Your task to perform on an android device: turn on location history Image 0: 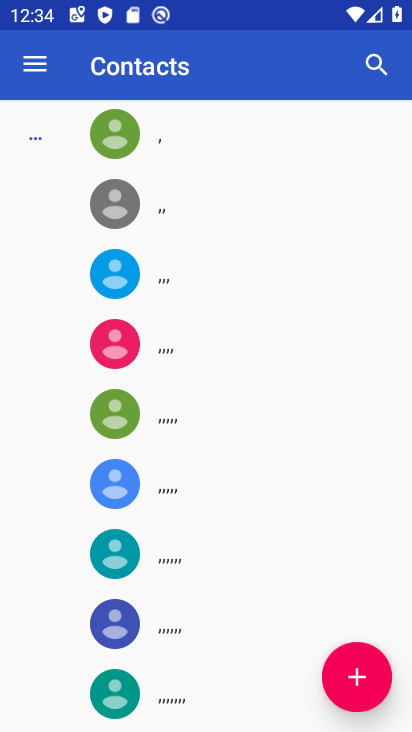
Step 0: press home button
Your task to perform on an android device: turn on location history Image 1: 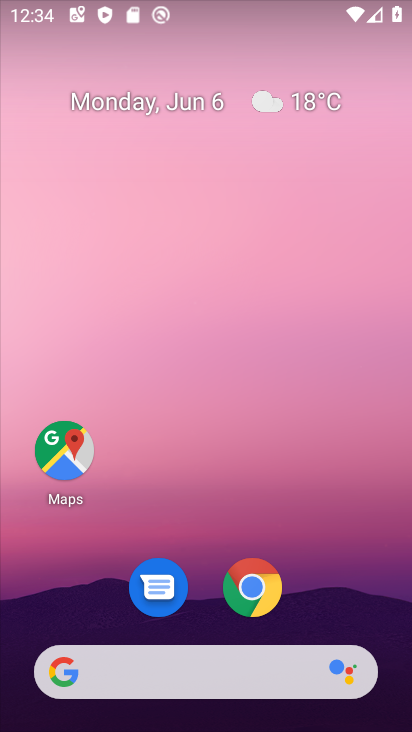
Step 1: drag from (356, 574) to (344, 216)
Your task to perform on an android device: turn on location history Image 2: 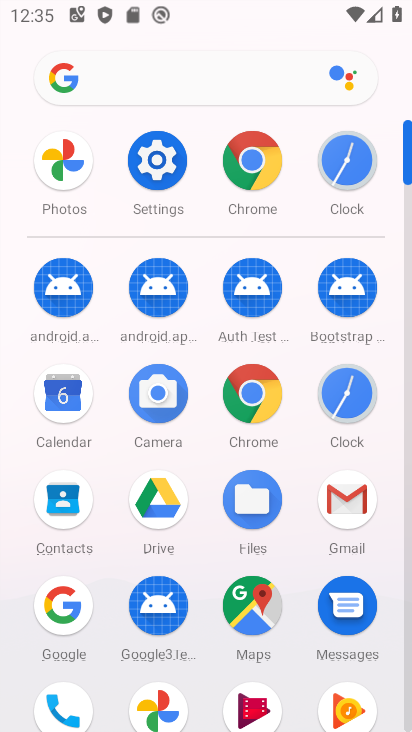
Step 2: click (162, 158)
Your task to perform on an android device: turn on location history Image 3: 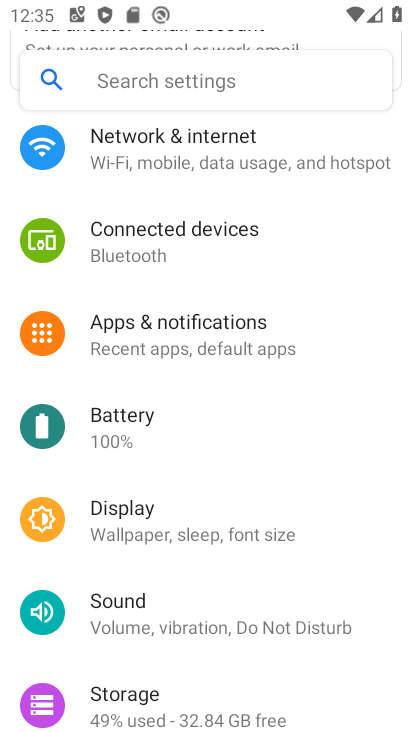
Step 3: drag from (199, 590) to (242, 367)
Your task to perform on an android device: turn on location history Image 4: 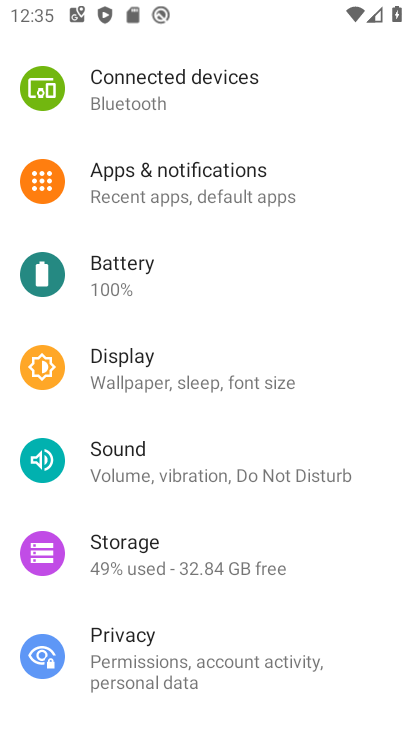
Step 4: drag from (217, 543) to (256, 288)
Your task to perform on an android device: turn on location history Image 5: 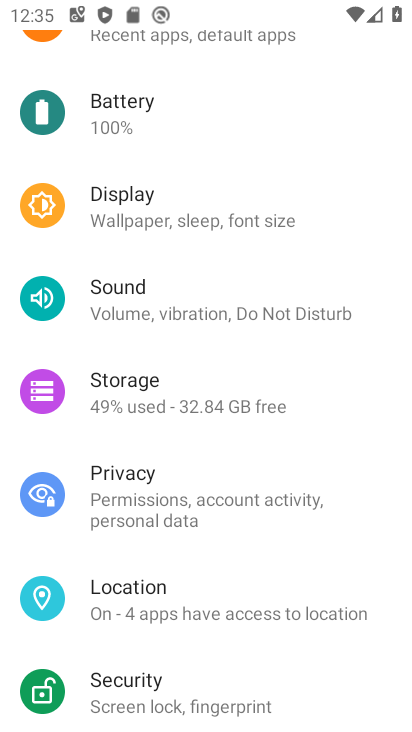
Step 5: click (211, 605)
Your task to perform on an android device: turn on location history Image 6: 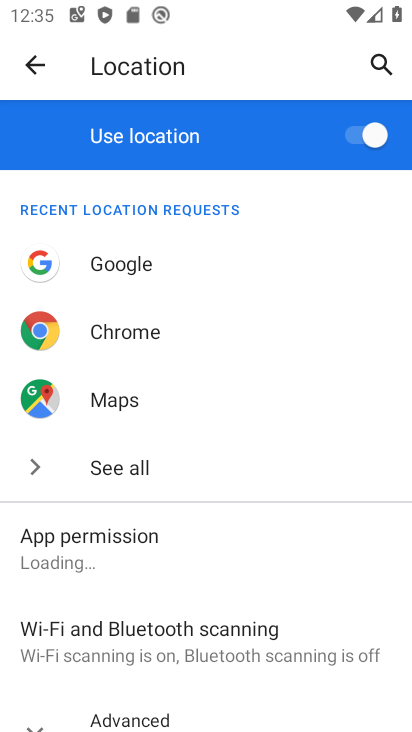
Step 6: drag from (192, 570) to (259, 261)
Your task to perform on an android device: turn on location history Image 7: 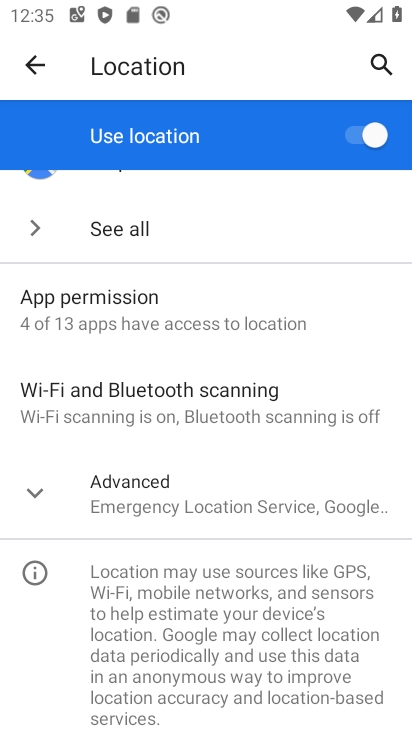
Step 7: click (273, 471)
Your task to perform on an android device: turn on location history Image 8: 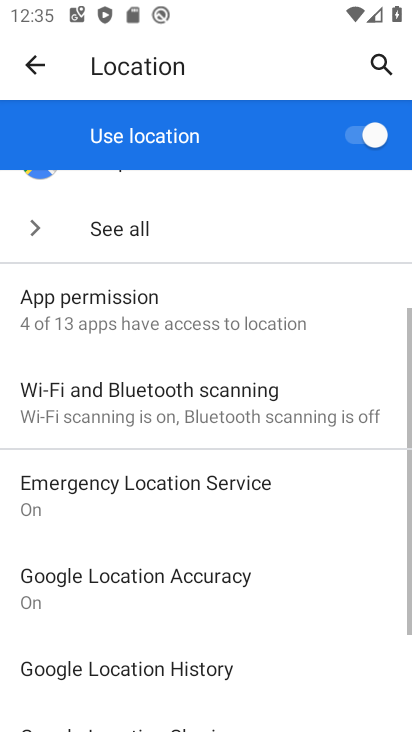
Step 8: drag from (236, 616) to (260, 389)
Your task to perform on an android device: turn on location history Image 9: 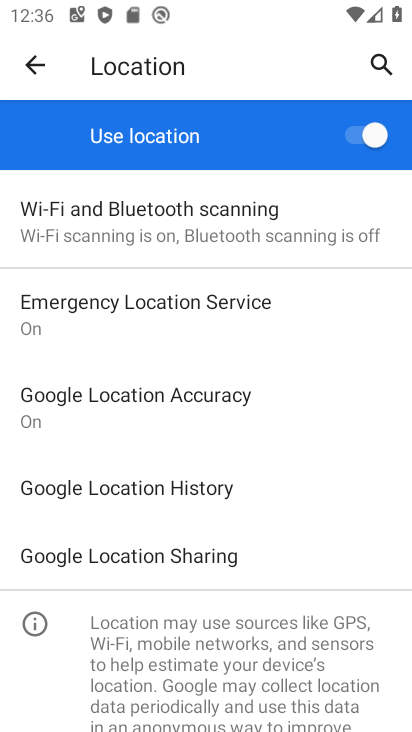
Step 9: click (178, 500)
Your task to perform on an android device: turn on location history Image 10: 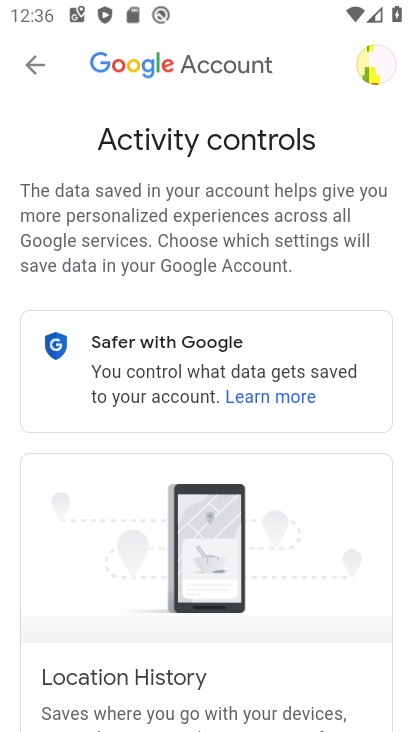
Step 10: drag from (311, 604) to (335, 306)
Your task to perform on an android device: turn on location history Image 11: 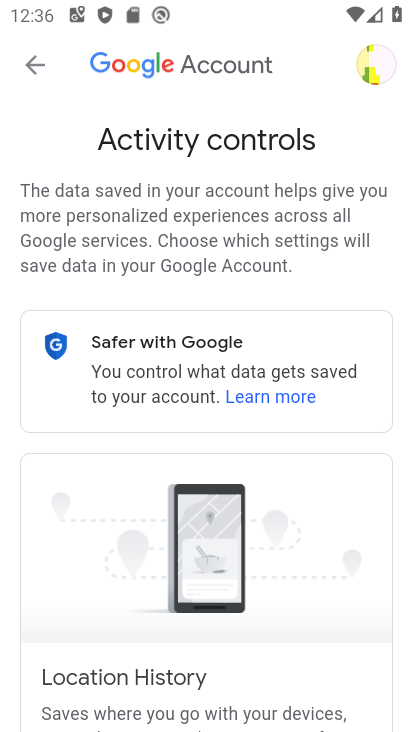
Step 11: drag from (305, 577) to (329, 279)
Your task to perform on an android device: turn on location history Image 12: 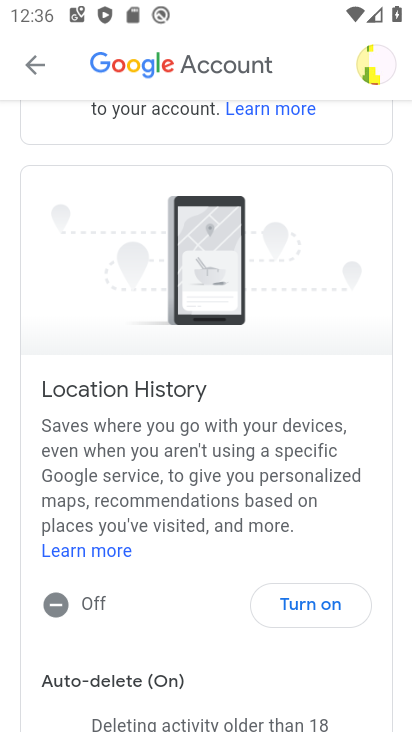
Step 12: click (298, 604)
Your task to perform on an android device: turn on location history Image 13: 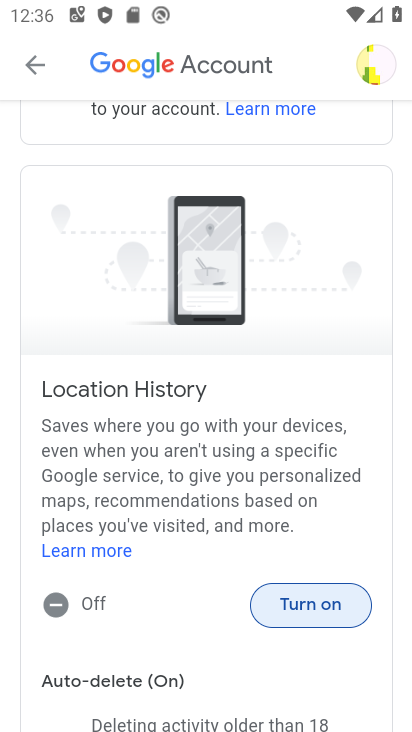
Step 13: click (298, 613)
Your task to perform on an android device: turn on location history Image 14: 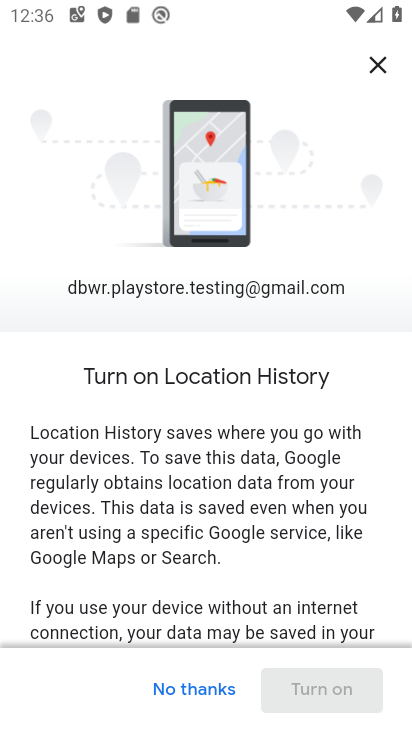
Step 14: drag from (287, 631) to (307, 289)
Your task to perform on an android device: turn on location history Image 15: 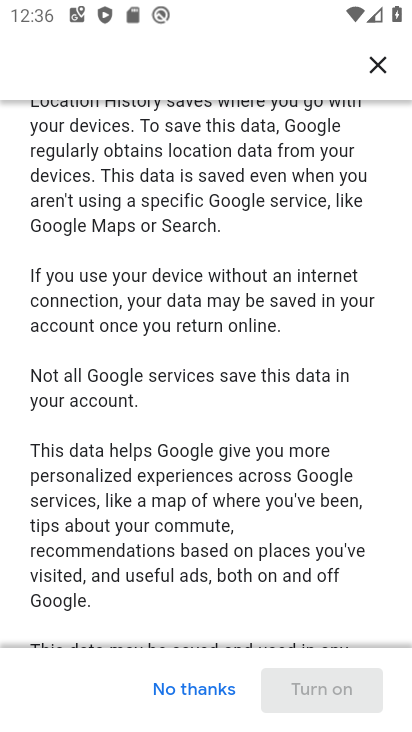
Step 15: drag from (283, 572) to (325, 269)
Your task to perform on an android device: turn on location history Image 16: 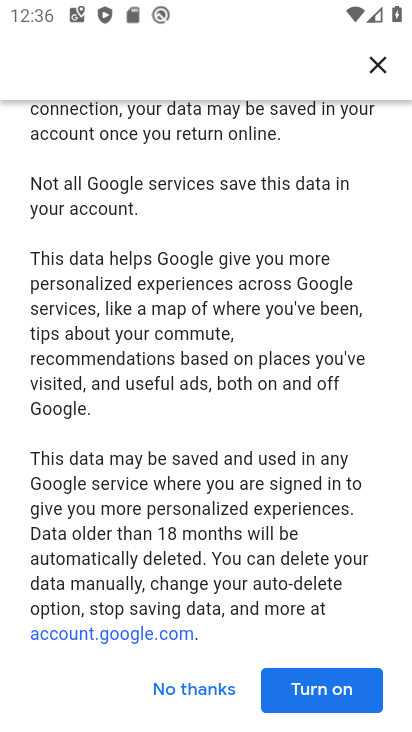
Step 16: click (296, 695)
Your task to perform on an android device: turn on location history Image 17: 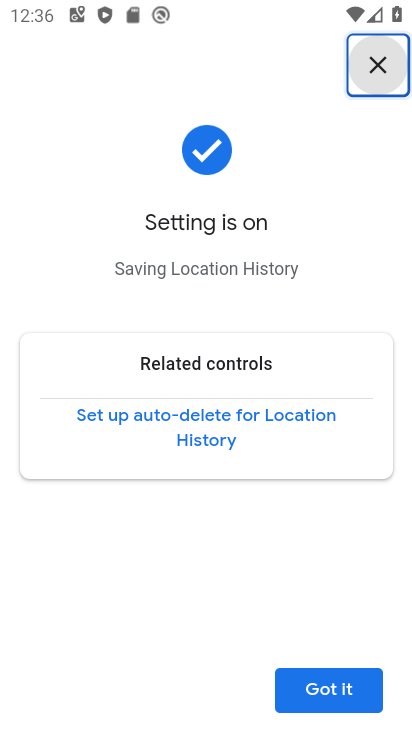
Step 17: task complete